Your task to perform on an android device: Go to sound settings Image 0: 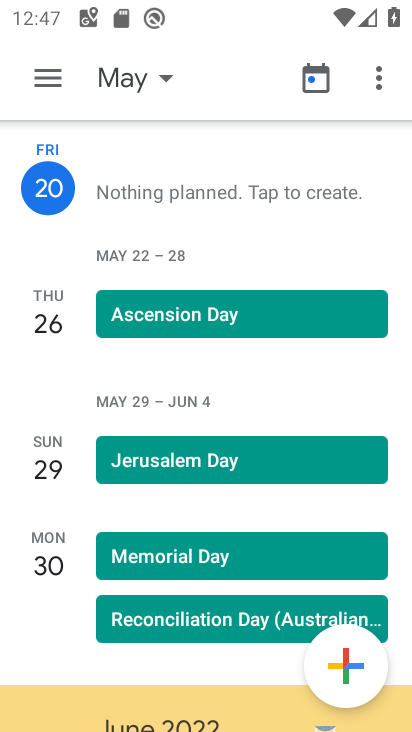
Step 0: press home button
Your task to perform on an android device: Go to sound settings Image 1: 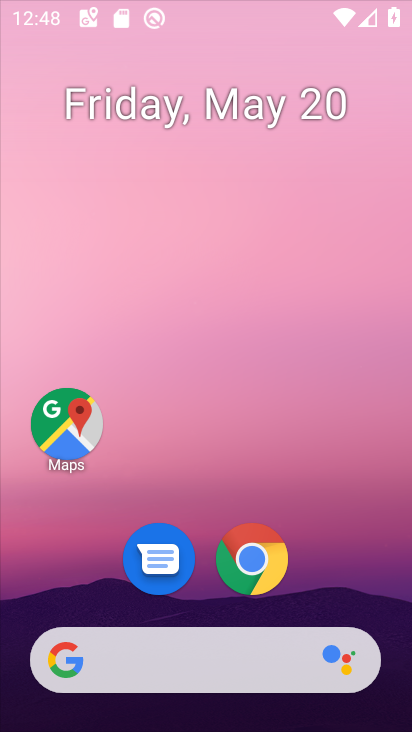
Step 1: drag from (336, 557) to (343, 161)
Your task to perform on an android device: Go to sound settings Image 2: 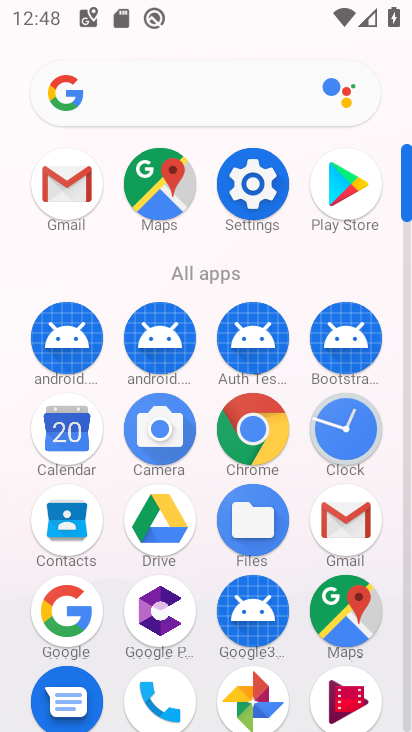
Step 2: click (263, 210)
Your task to perform on an android device: Go to sound settings Image 3: 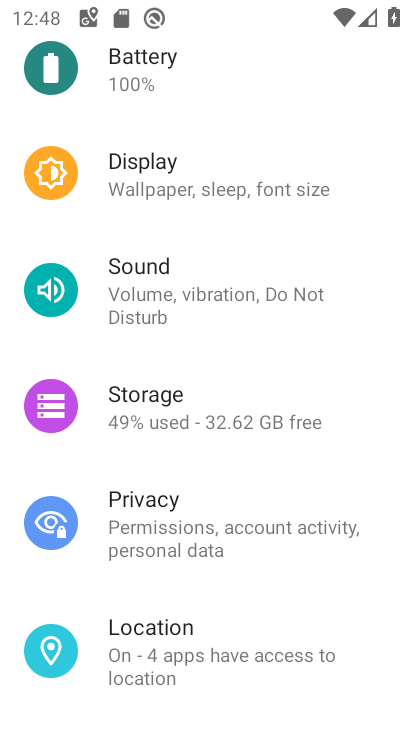
Step 3: click (173, 312)
Your task to perform on an android device: Go to sound settings Image 4: 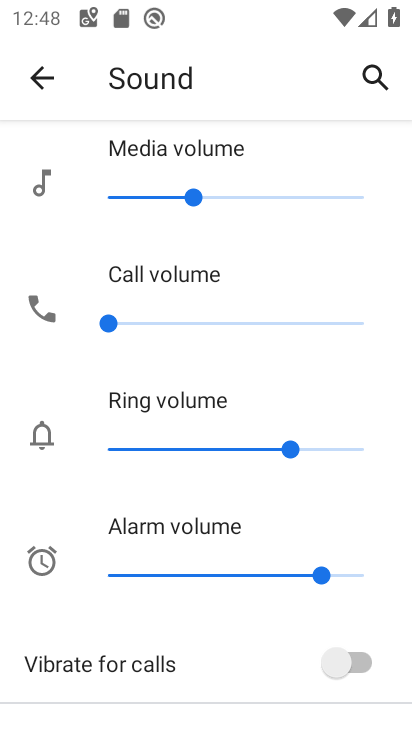
Step 4: task complete